Your task to perform on an android device: Open Android settings Image 0: 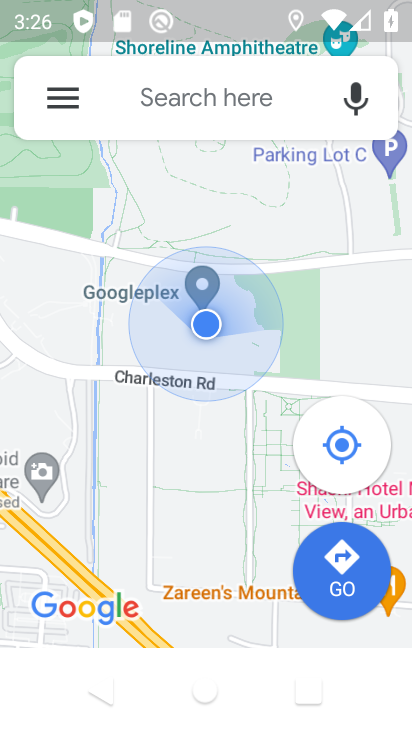
Step 0: press home button
Your task to perform on an android device: Open Android settings Image 1: 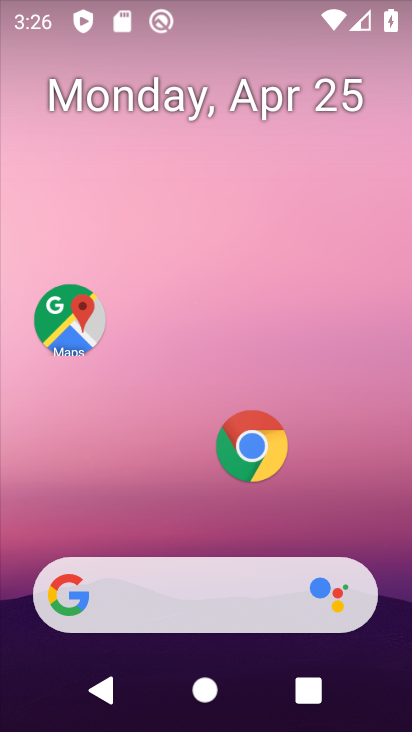
Step 1: drag from (117, 501) to (407, 32)
Your task to perform on an android device: Open Android settings Image 2: 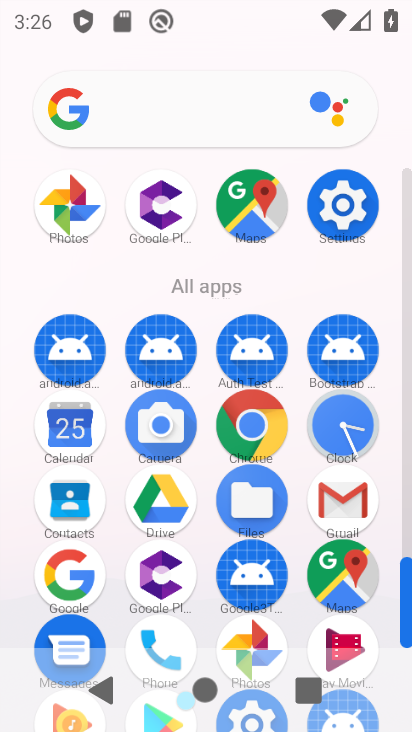
Step 2: click (347, 202)
Your task to perform on an android device: Open Android settings Image 3: 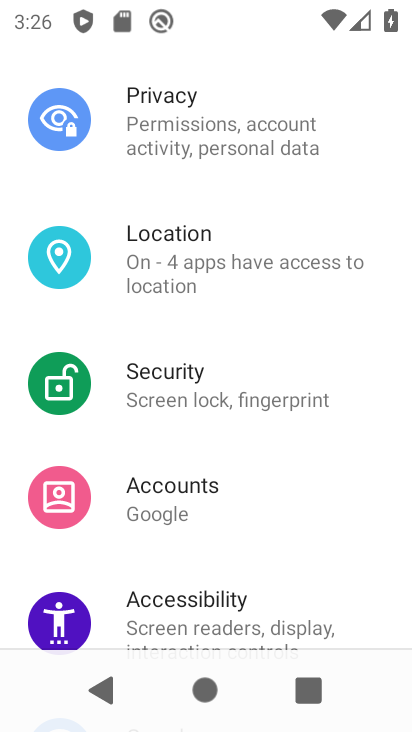
Step 3: task complete